Your task to perform on an android device: Go to Maps Image 0: 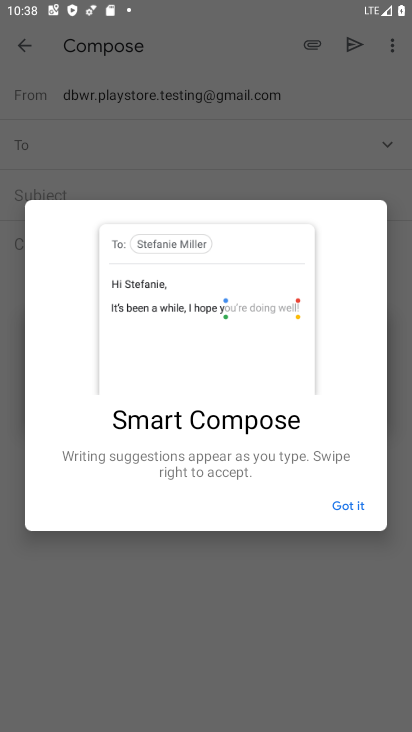
Step 0: press home button
Your task to perform on an android device: Go to Maps Image 1: 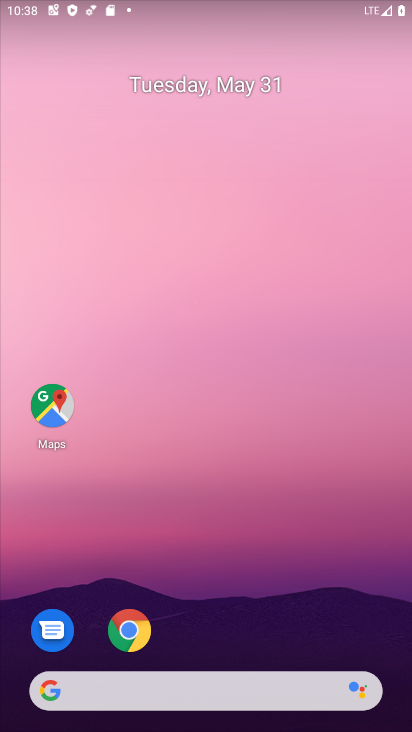
Step 1: click (51, 401)
Your task to perform on an android device: Go to Maps Image 2: 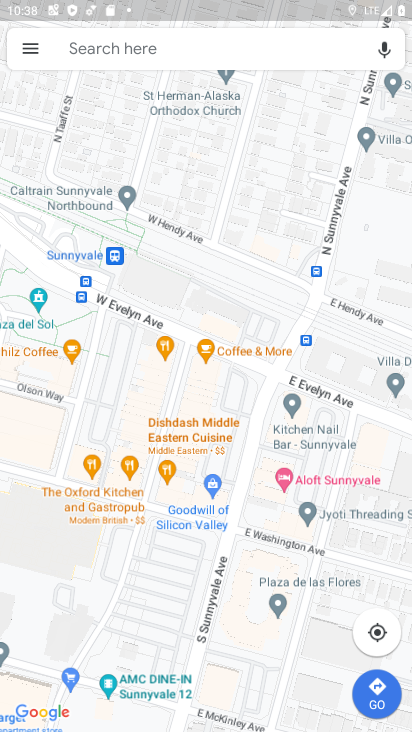
Step 2: task complete